Your task to perform on an android device: Play the last video I watched on Youtube Image 0: 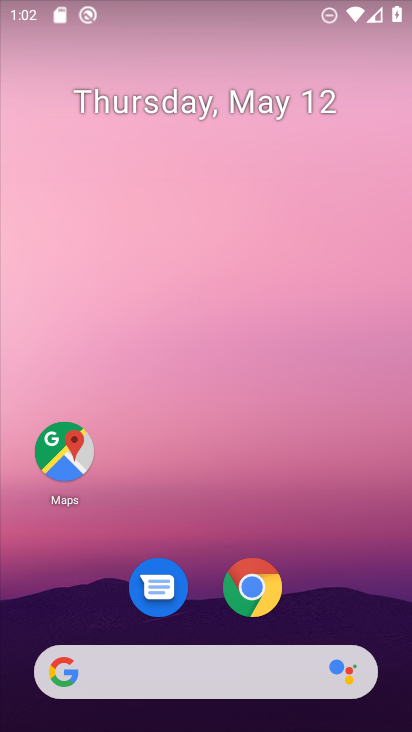
Step 0: drag from (329, 594) to (273, 148)
Your task to perform on an android device: Play the last video I watched on Youtube Image 1: 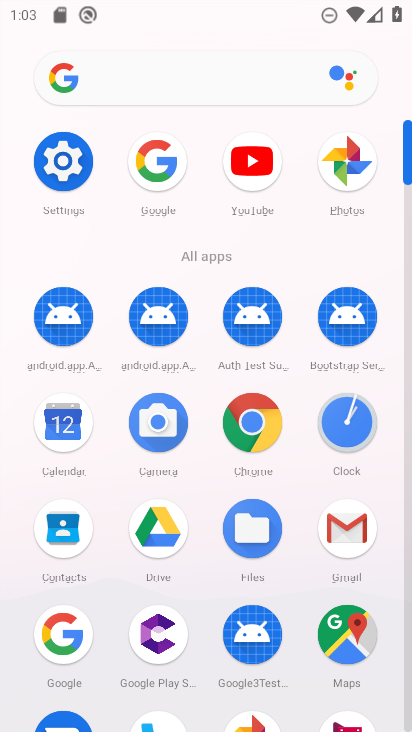
Step 1: click (252, 161)
Your task to perform on an android device: Play the last video I watched on Youtube Image 2: 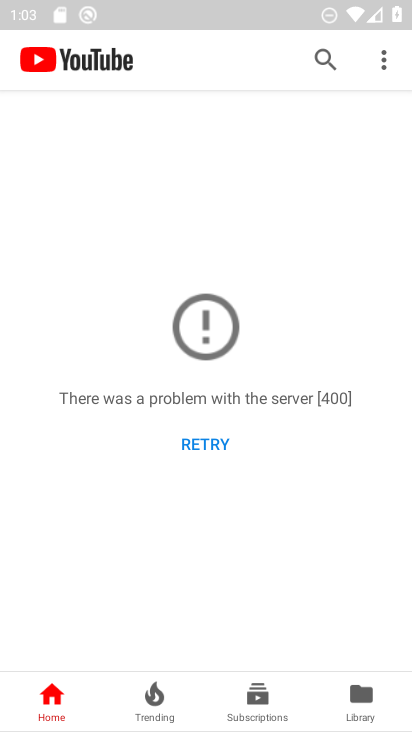
Step 2: click (371, 700)
Your task to perform on an android device: Play the last video I watched on Youtube Image 3: 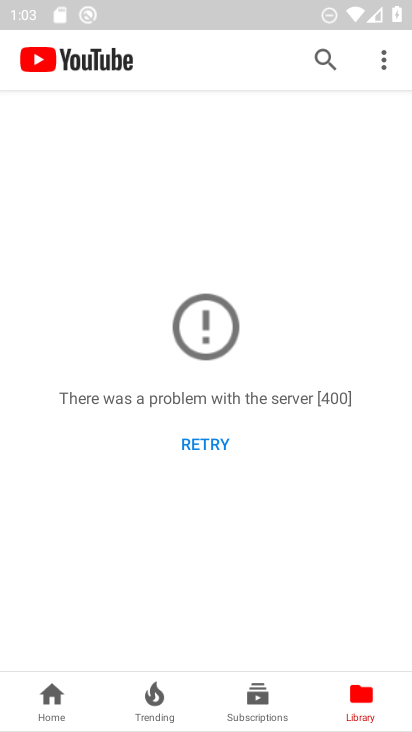
Step 3: click (210, 435)
Your task to perform on an android device: Play the last video I watched on Youtube Image 4: 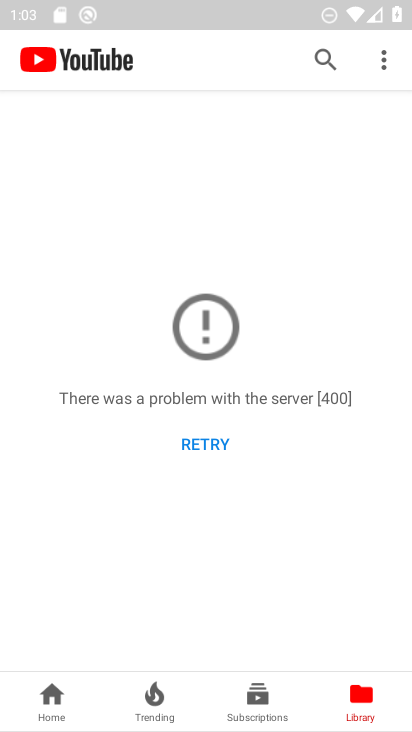
Step 4: click (205, 438)
Your task to perform on an android device: Play the last video I watched on Youtube Image 5: 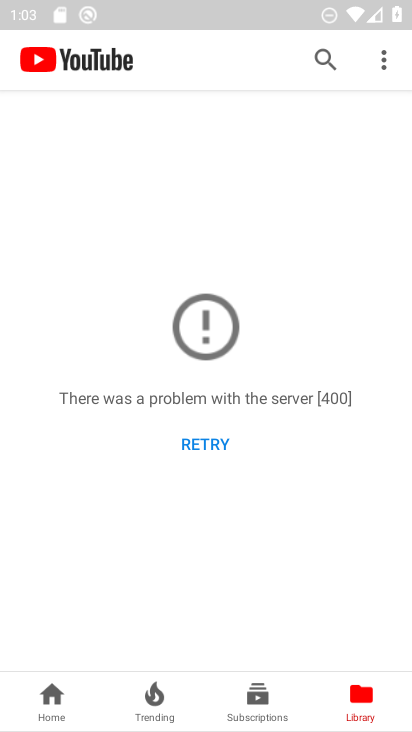
Step 5: click (205, 439)
Your task to perform on an android device: Play the last video I watched on Youtube Image 6: 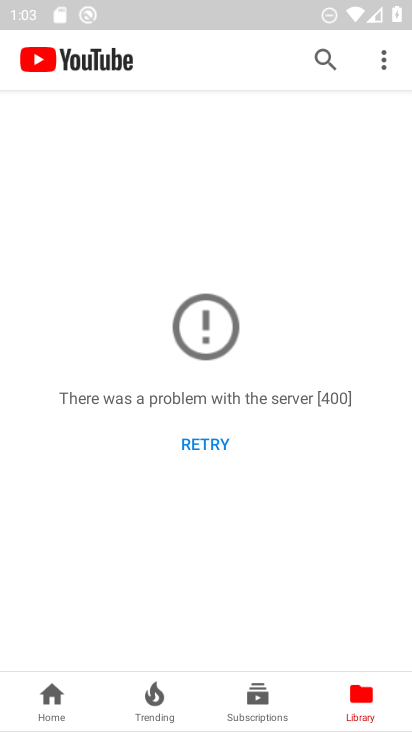
Step 6: click (205, 438)
Your task to perform on an android device: Play the last video I watched on Youtube Image 7: 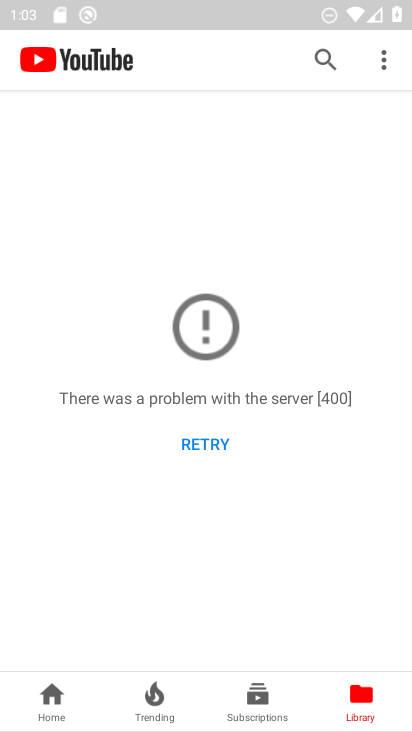
Step 7: task complete